Your task to perform on an android device: Open Google Image 0: 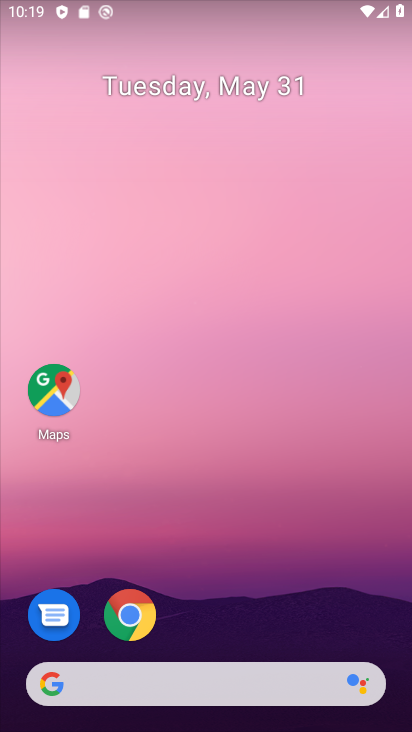
Step 0: task complete